Your task to perform on an android device: Go to Maps Image 0: 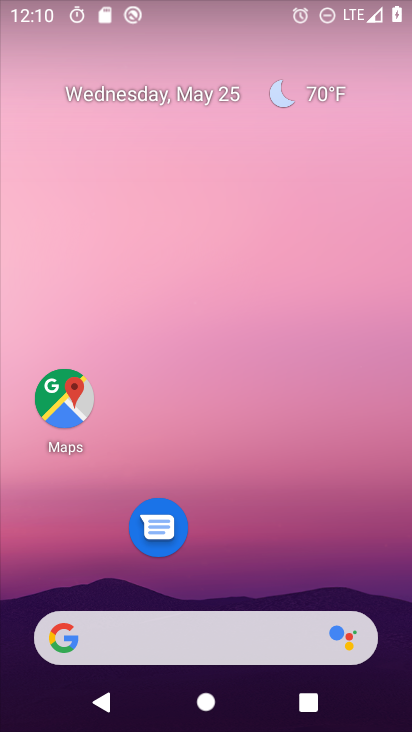
Step 0: click (71, 405)
Your task to perform on an android device: Go to Maps Image 1: 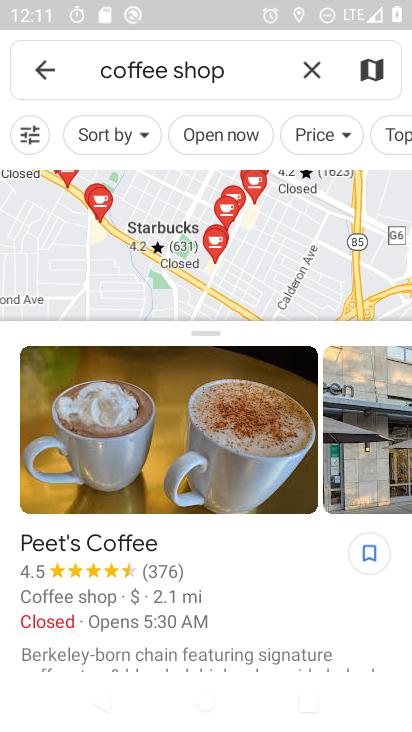
Step 1: task complete